Your task to perform on an android device: Turn on the flashlight Image 0: 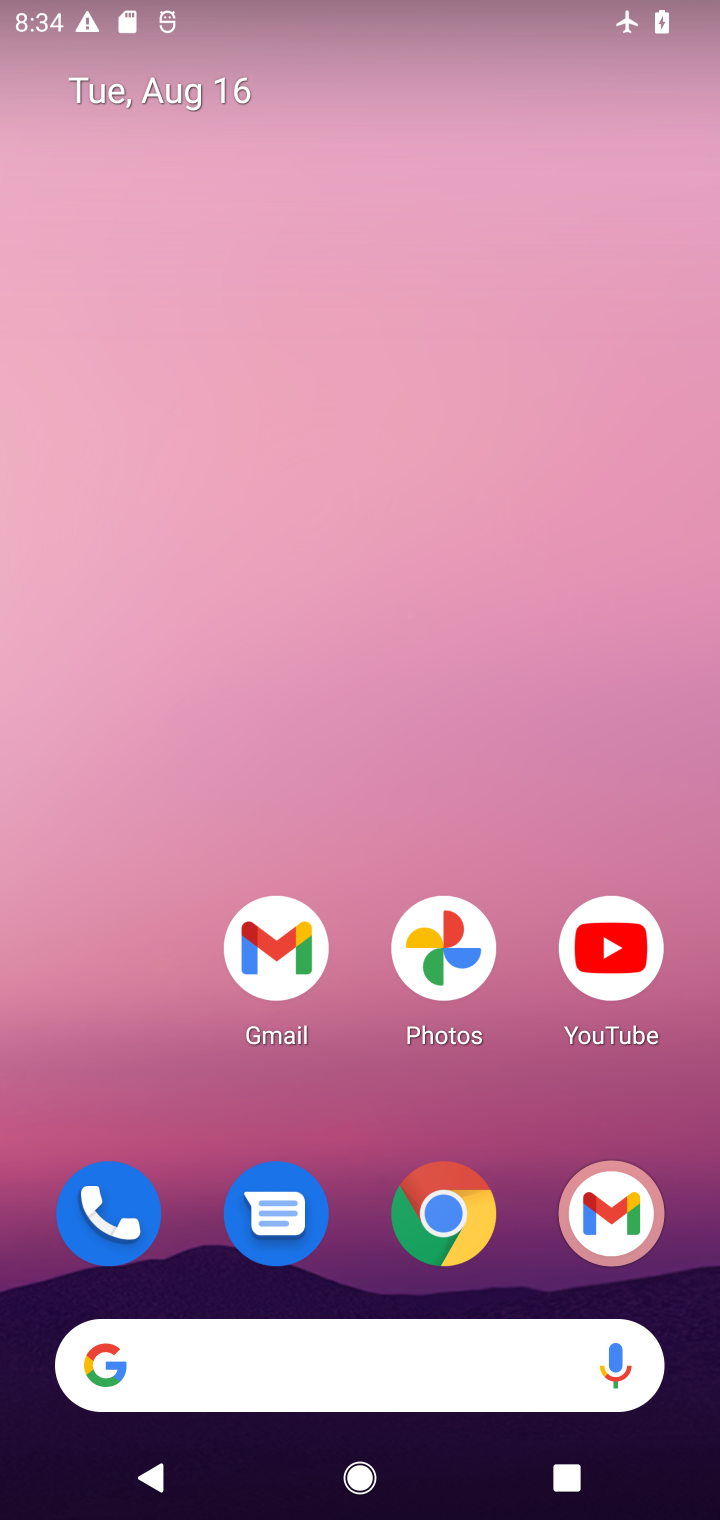
Step 0: press home button
Your task to perform on an android device: Turn on the flashlight Image 1: 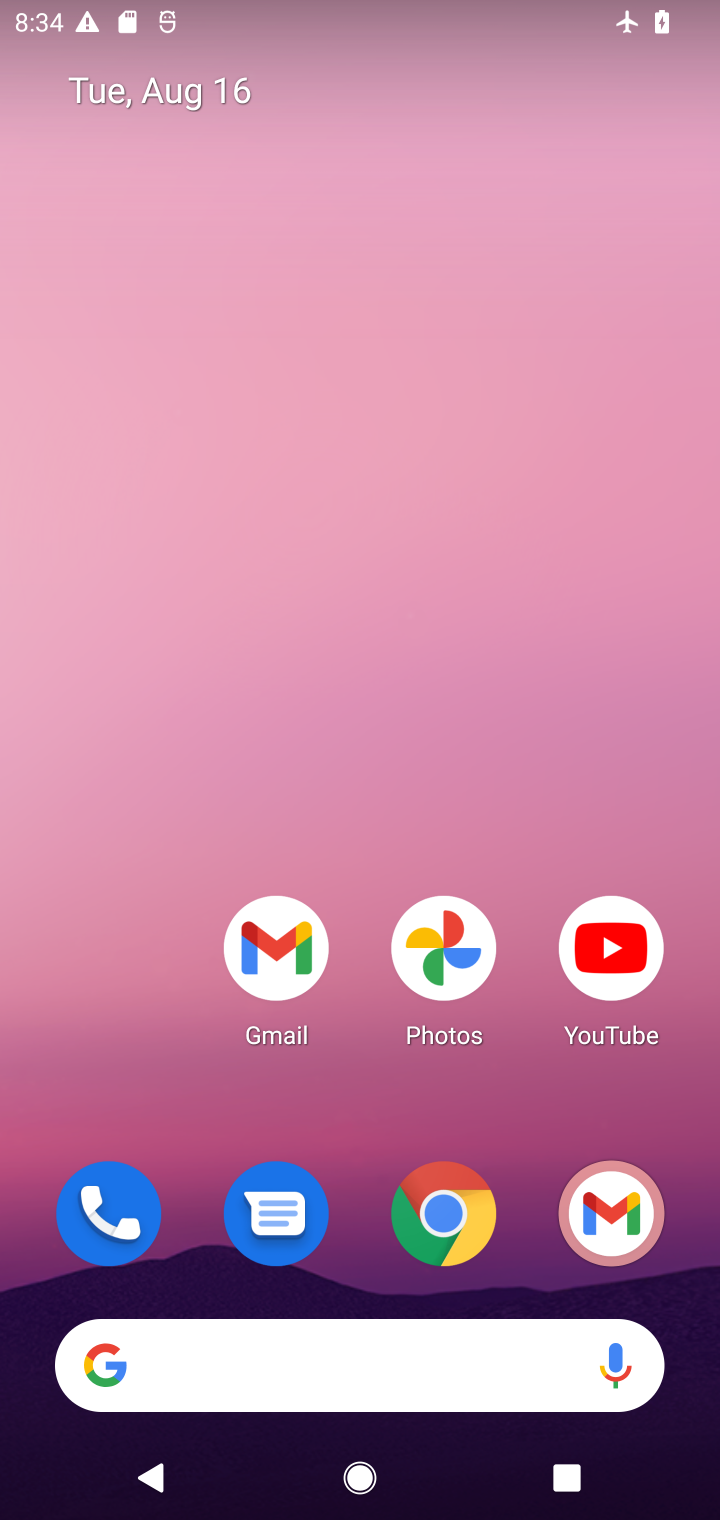
Step 1: click (386, 656)
Your task to perform on an android device: Turn on the flashlight Image 2: 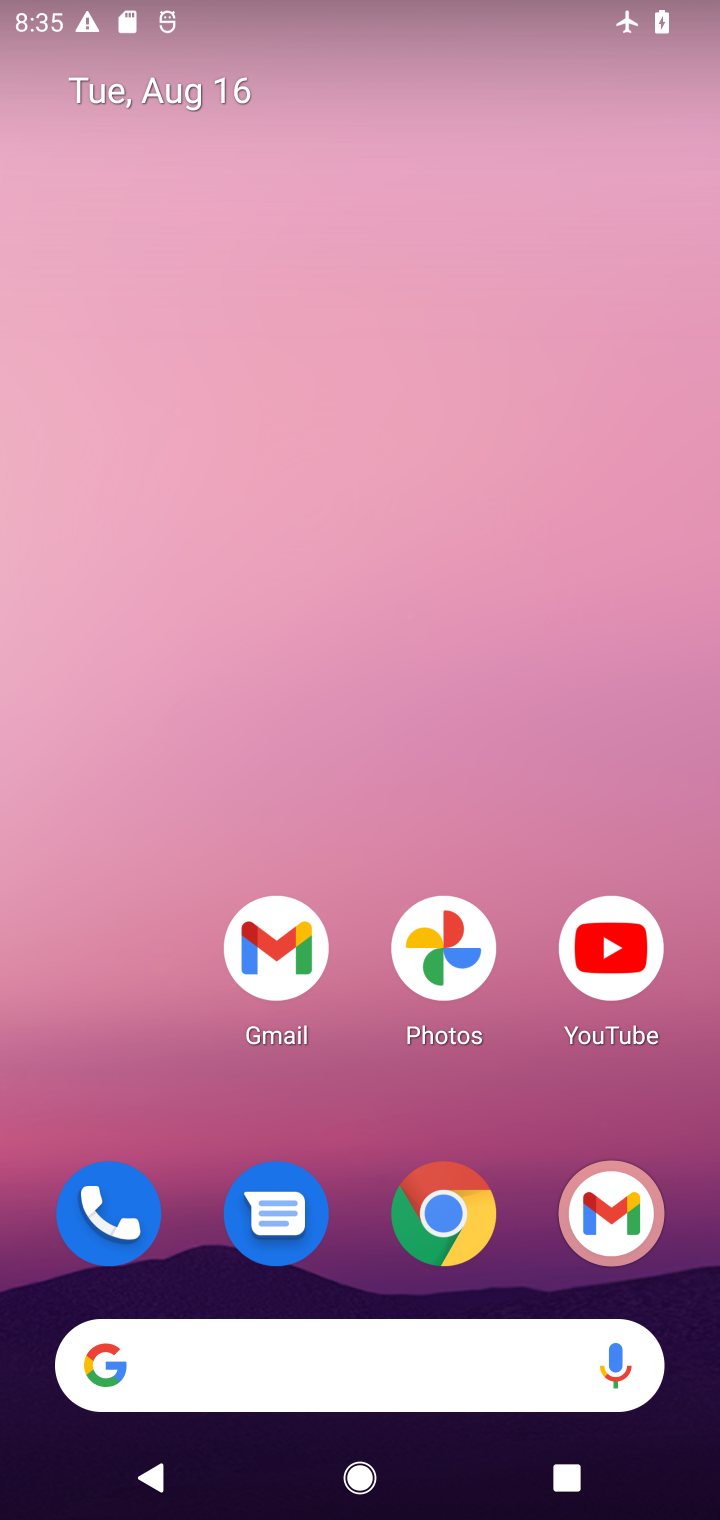
Step 2: drag from (423, 1316) to (435, 506)
Your task to perform on an android device: Turn on the flashlight Image 3: 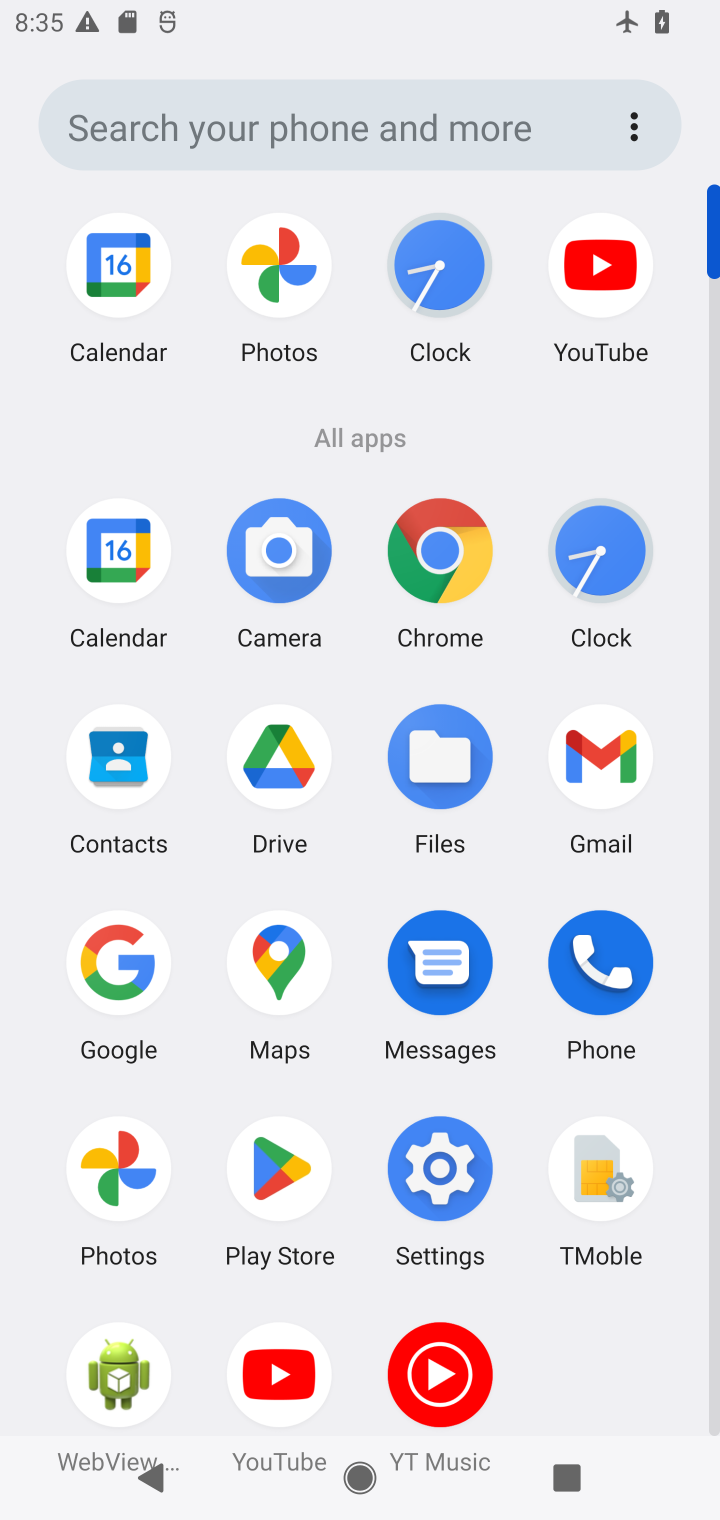
Step 3: click (403, 1157)
Your task to perform on an android device: Turn on the flashlight Image 4: 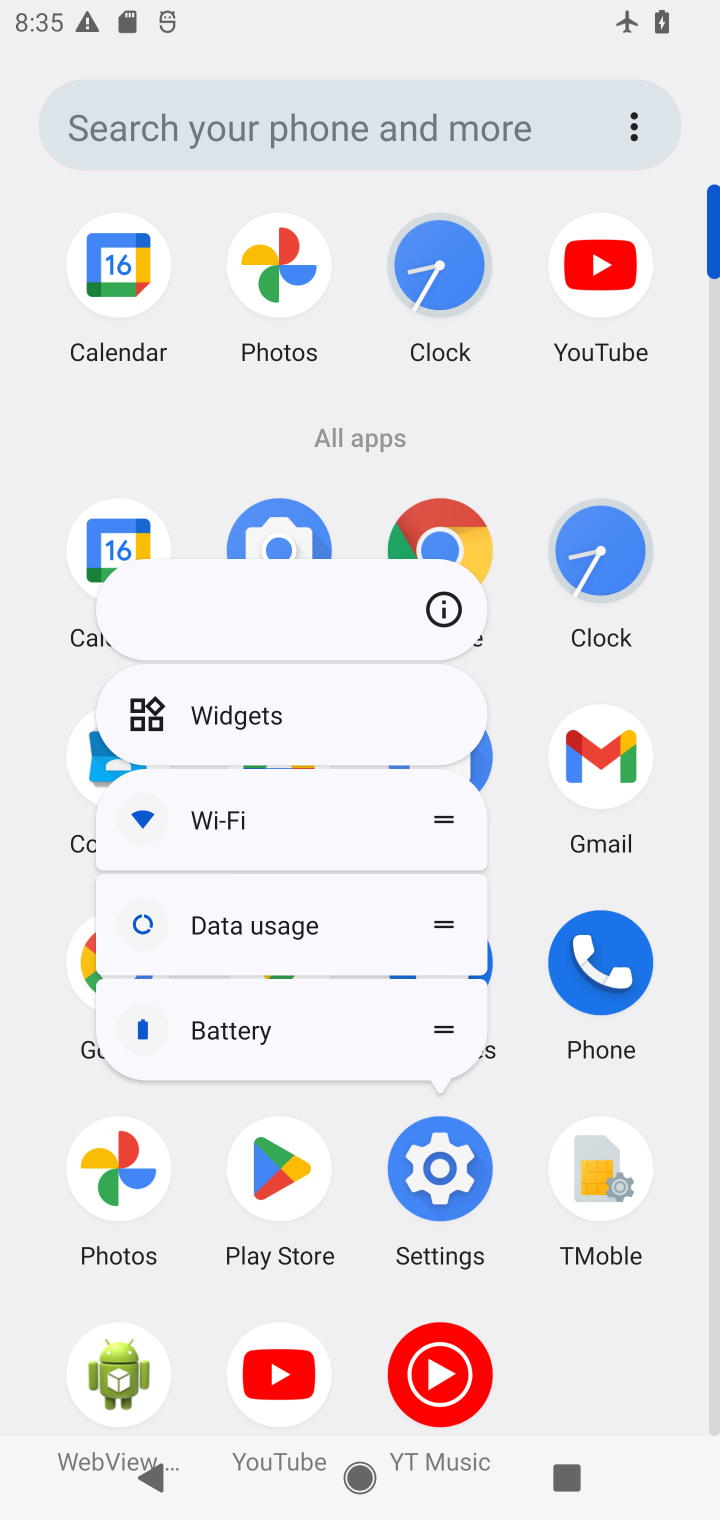
Step 4: click (441, 1189)
Your task to perform on an android device: Turn on the flashlight Image 5: 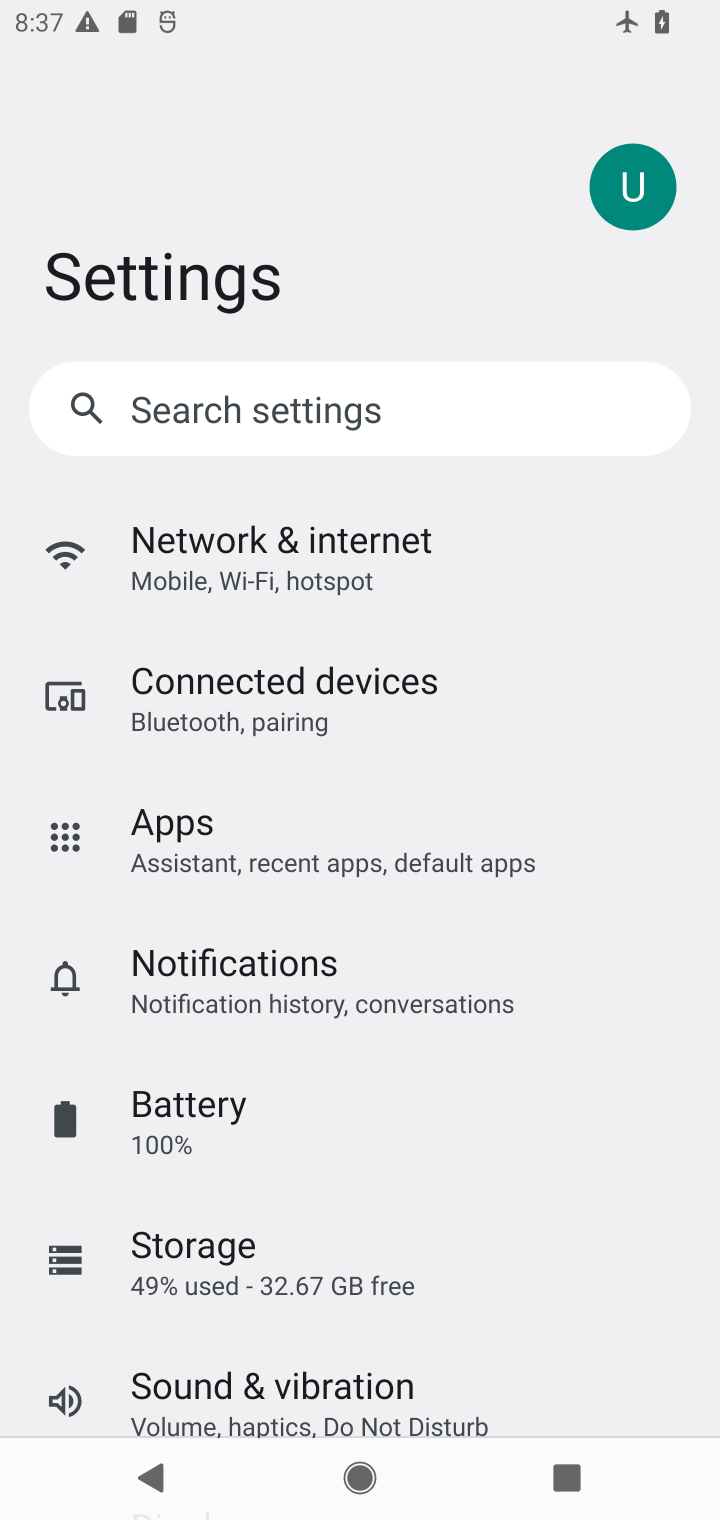
Step 5: task complete